Your task to perform on an android device: turn off priority inbox in the gmail app Image 0: 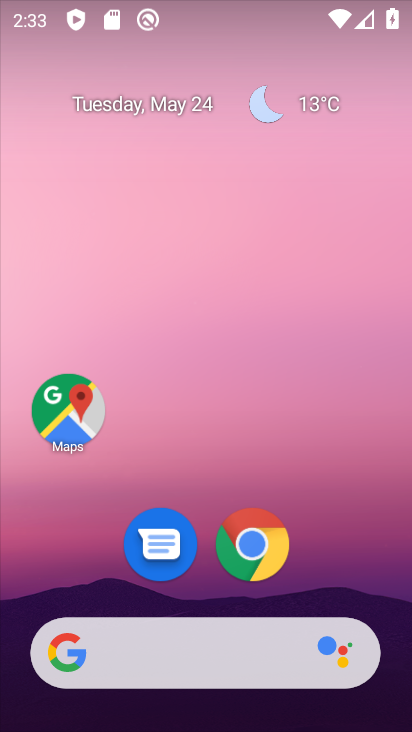
Step 0: drag from (375, 444) to (412, 2)
Your task to perform on an android device: turn off priority inbox in the gmail app Image 1: 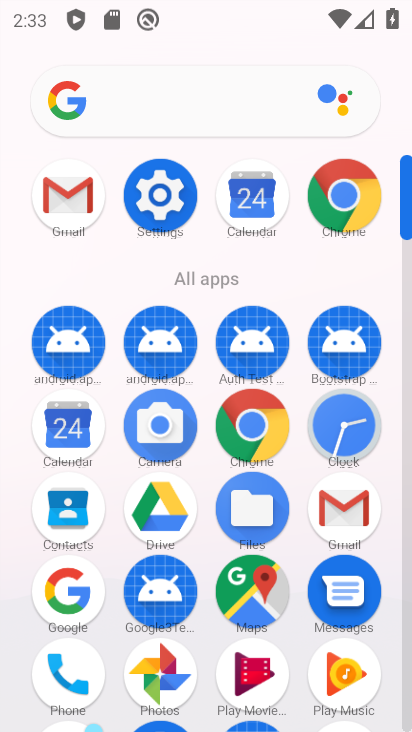
Step 1: click (331, 511)
Your task to perform on an android device: turn off priority inbox in the gmail app Image 2: 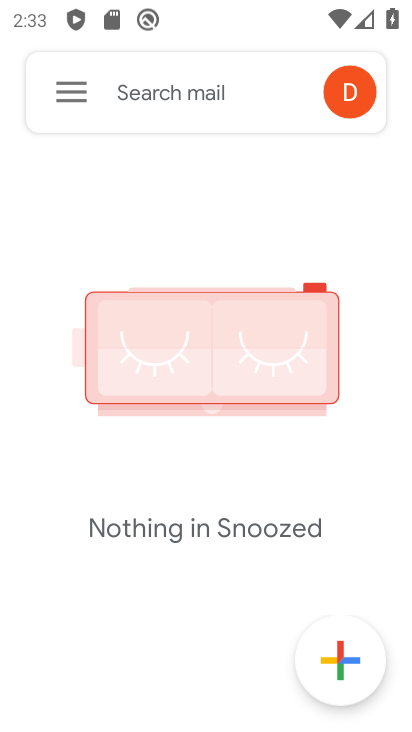
Step 2: click (55, 108)
Your task to perform on an android device: turn off priority inbox in the gmail app Image 3: 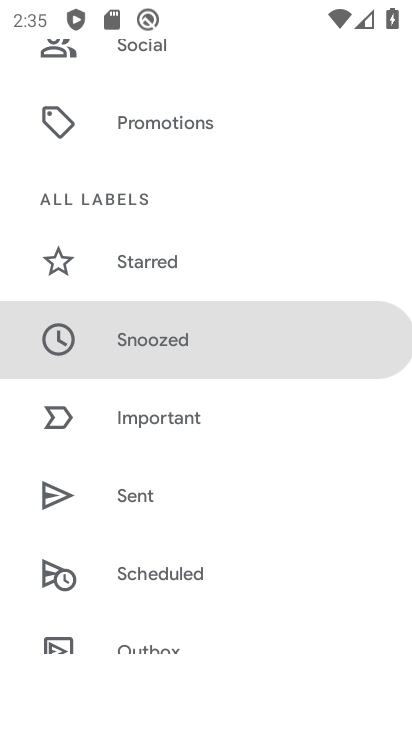
Step 3: drag from (205, 598) to (308, 186)
Your task to perform on an android device: turn off priority inbox in the gmail app Image 4: 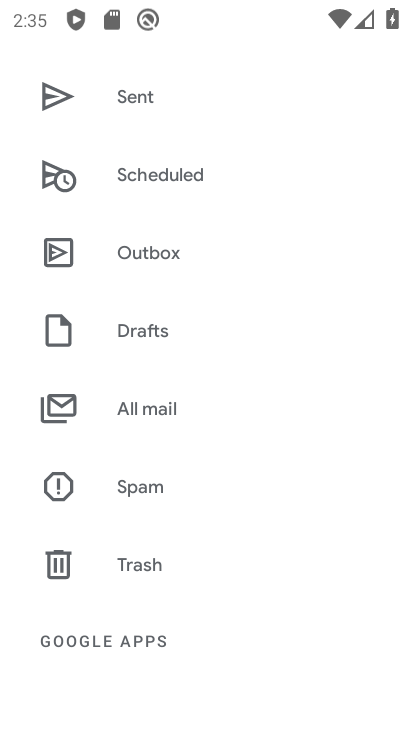
Step 4: drag from (146, 587) to (348, 28)
Your task to perform on an android device: turn off priority inbox in the gmail app Image 5: 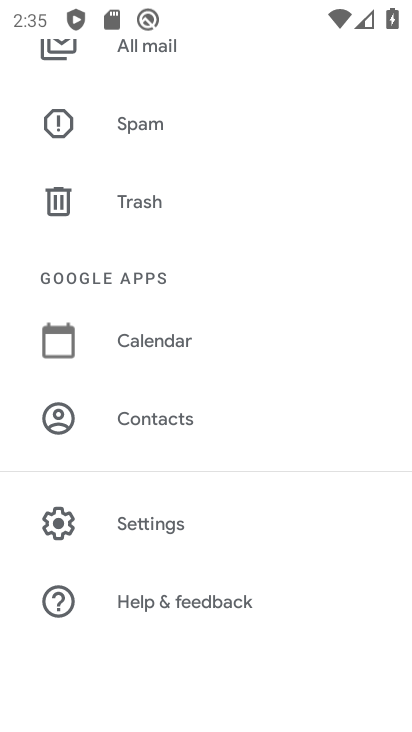
Step 5: click (146, 531)
Your task to perform on an android device: turn off priority inbox in the gmail app Image 6: 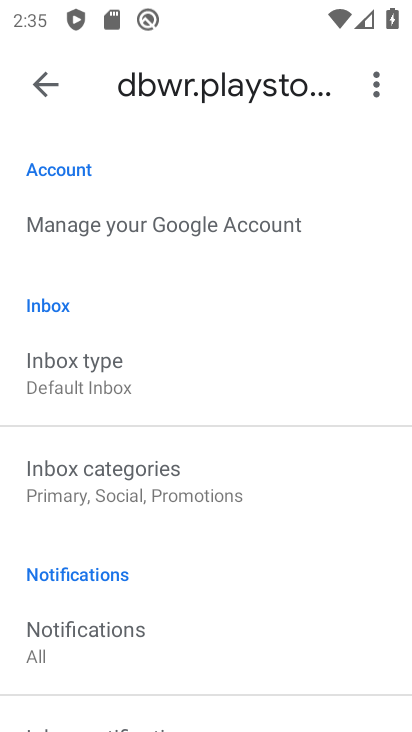
Step 6: drag from (147, 618) to (215, 432)
Your task to perform on an android device: turn off priority inbox in the gmail app Image 7: 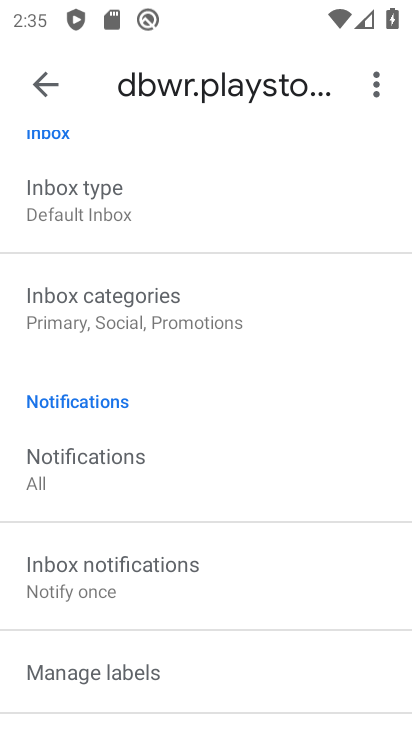
Step 7: click (126, 199)
Your task to perform on an android device: turn off priority inbox in the gmail app Image 8: 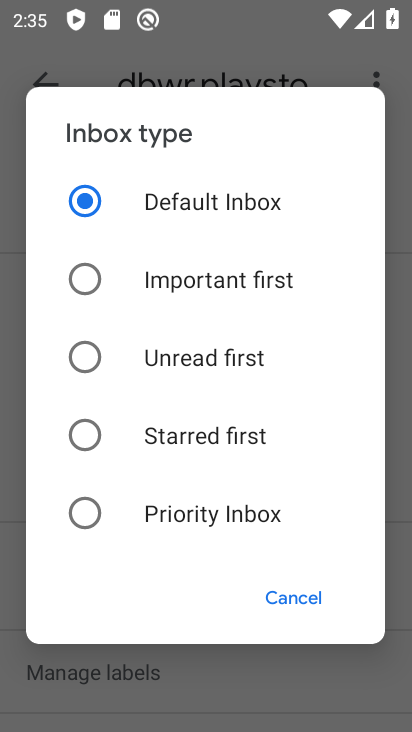
Step 8: task complete